Your task to perform on an android device: Open the web browser Image 0: 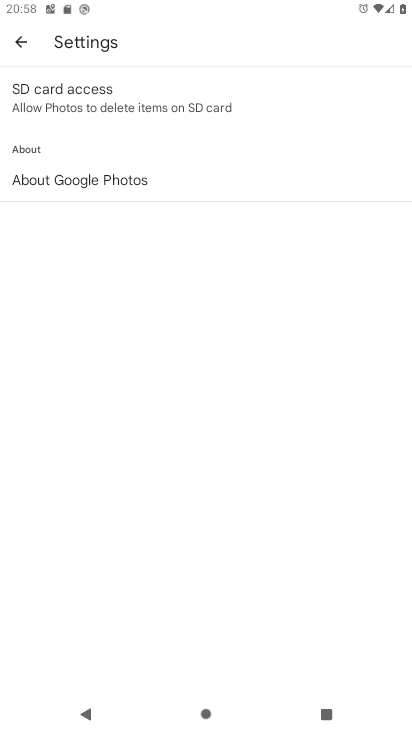
Step 0: press home button
Your task to perform on an android device: Open the web browser Image 1: 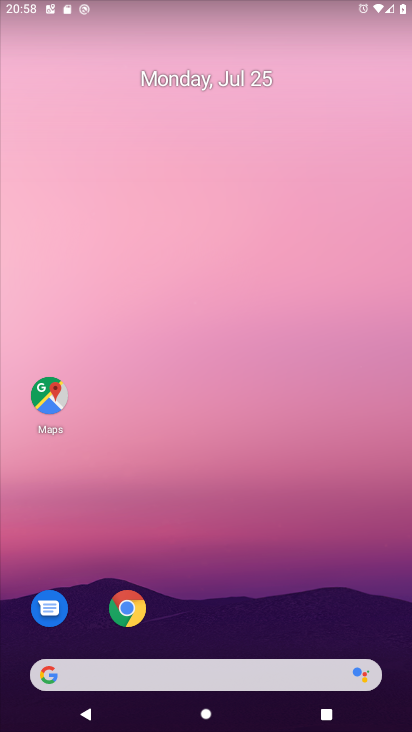
Step 1: click (131, 615)
Your task to perform on an android device: Open the web browser Image 2: 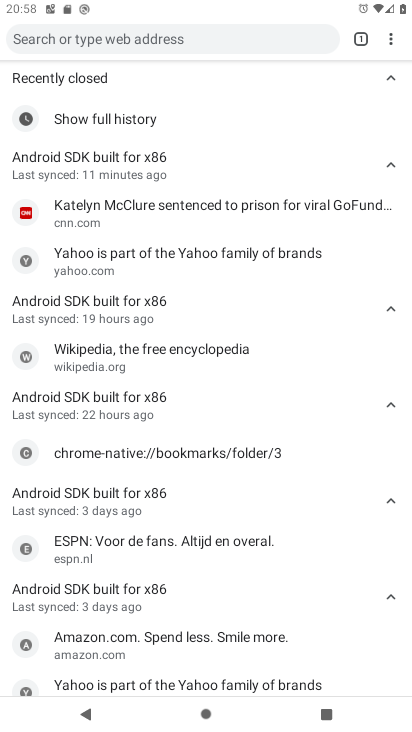
Step 2: task complete